Your task to perform on an android device: When is my next appointment? Image 0: 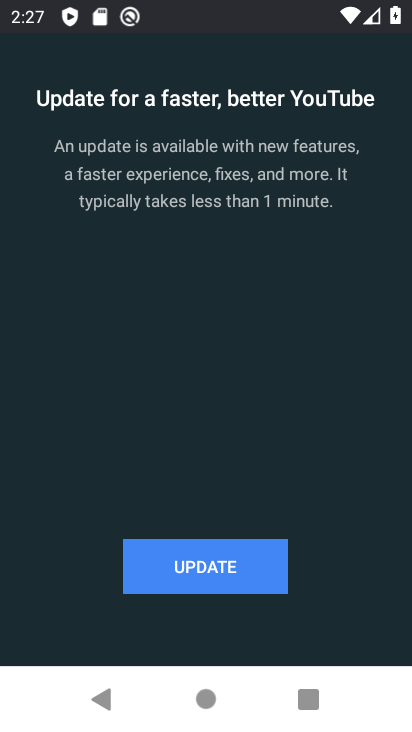
Step 0: press home button
Your task to perform on an android device: When is my next appointment? Image 1: 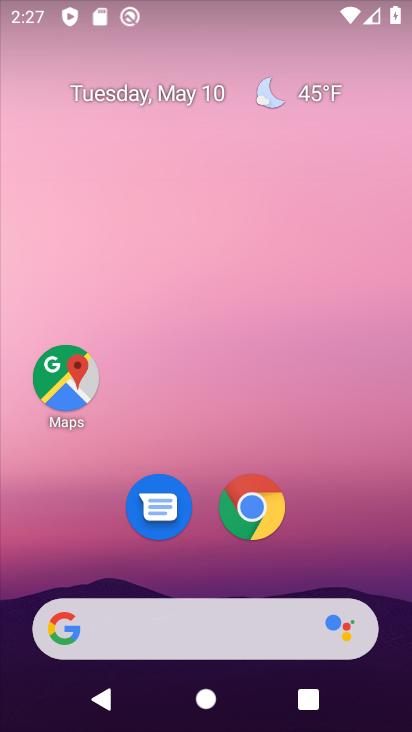
Step 1: drag from (162, 615) to (207, 107)
Your task to perform on an android device: When is my next appointment? Image 2: 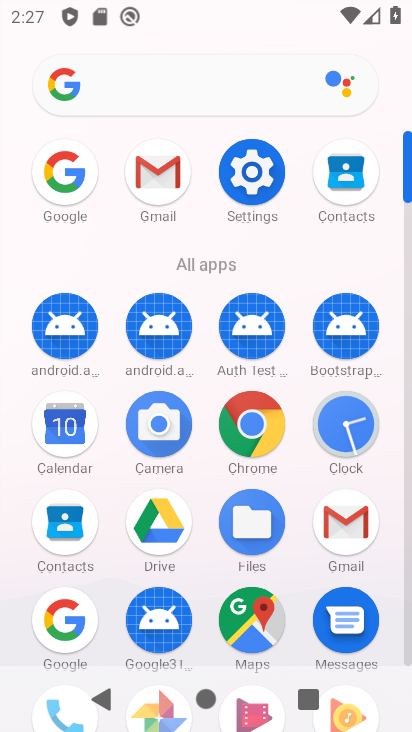
Step 2: click (64, 418)
Your task to perform on an android device: When is my next appointment? Image 3: 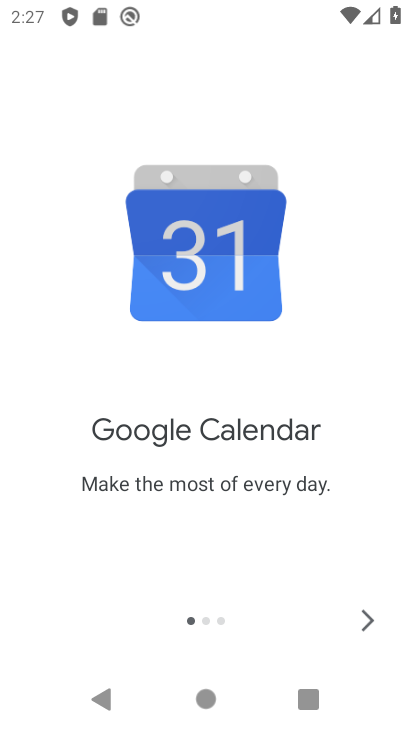
Step 3: click (357, 618)
Your task to perform on an android device: When is my next appointment? Image 4: 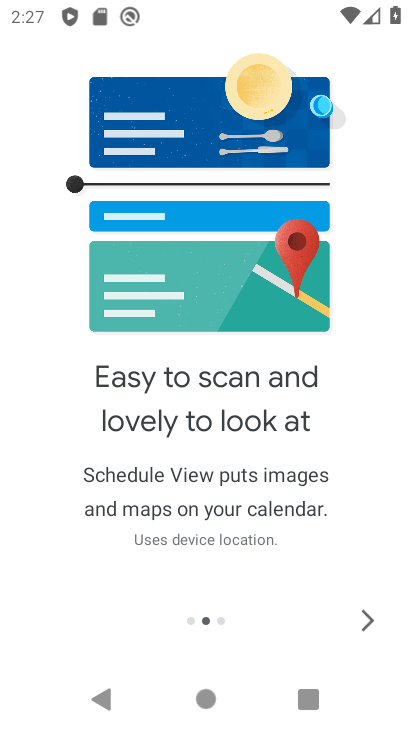
Step 4: click (357, 619)
Your task to perform on an android device: When is my next appointment? Image 5: 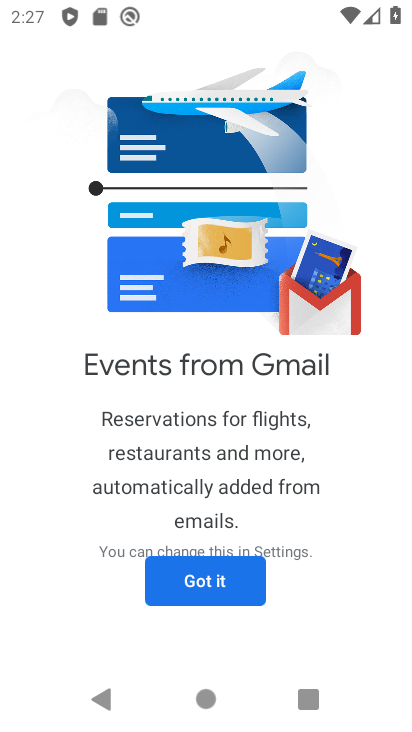
Step 5: click (193, 592)
Your task to perform on an android device: When is my next appointment? Image 6: 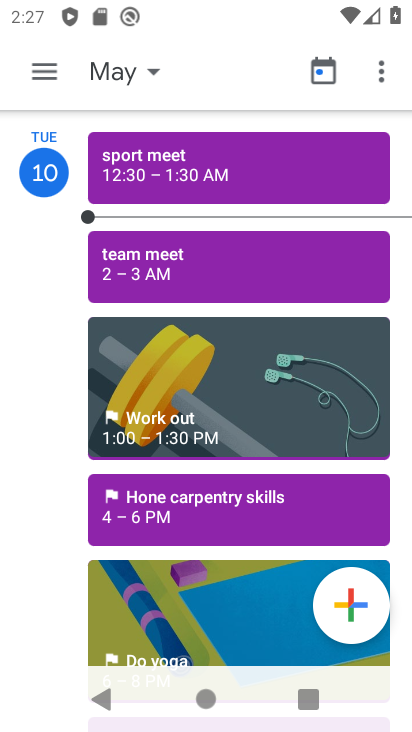
Step 6: drag from (224, 554) to (234, 294)
Your task to perform on an android device: When is my next appointment? Image 7: 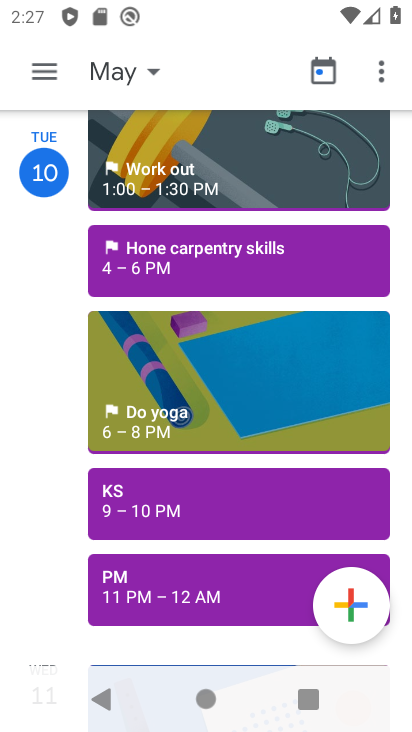
Step 7: click (210, 245)
Your task to perform on an android device: When is my next appointment? Image 8: 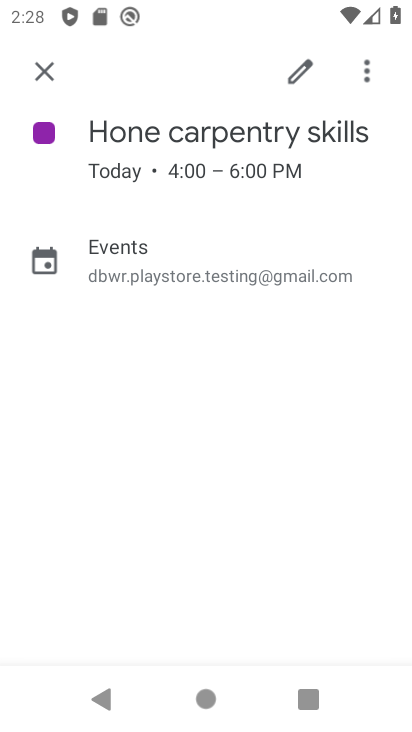
Step 8: click (53, 65)
Your task to perform on an android device: When is my next appointment? Image 9: 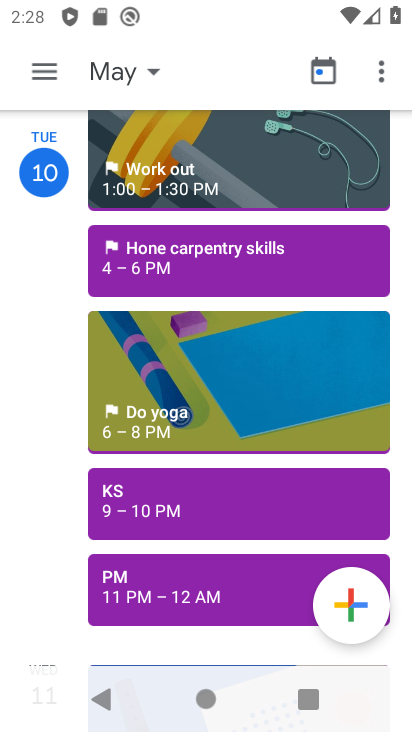
Step 9: click (201, 186)
Your task to perform on an android device: When is my next appointment? Image 10: 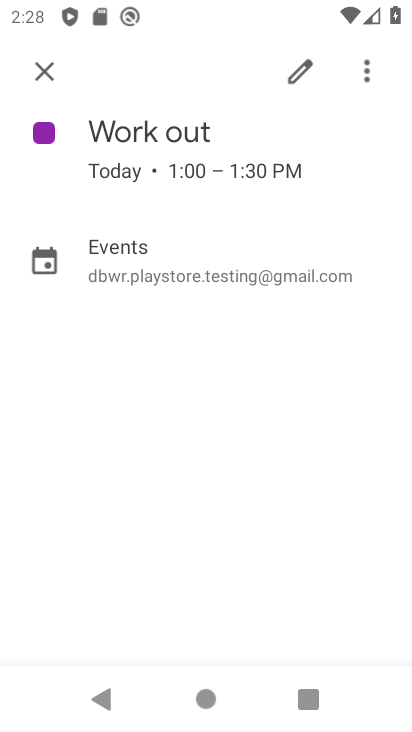
Step 10: click (51, 65)
Your task to perform on an android device: When is my next appointment? Image 11: 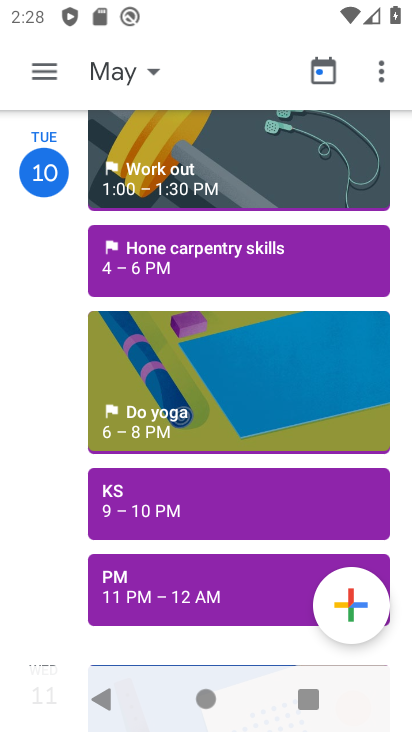
Step 11: click (169, 421)
Your task to perform on an android device: When is my next appointment? Image 12: 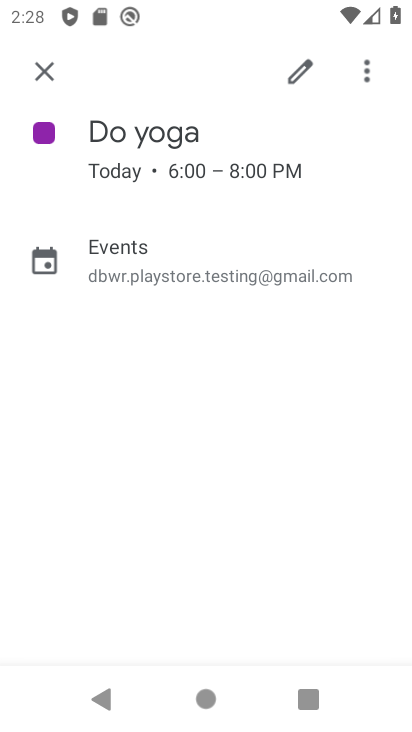
Step 12: task complete